Your task to perform on an android device: create a new album in the google photos Image 0: 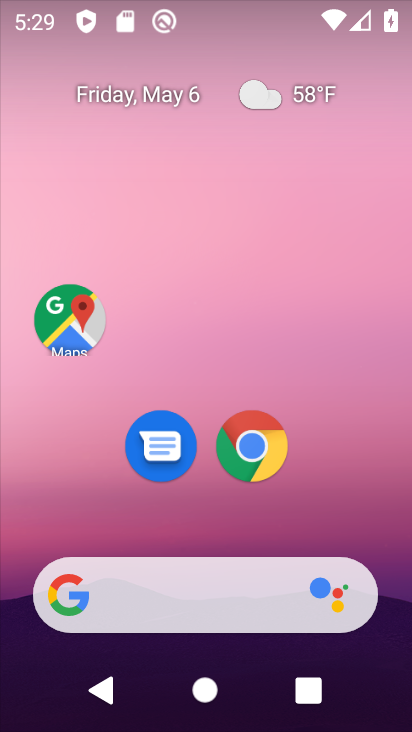
Step 0: drag from (339, 471) to (302, 127)
Your task to perform on an android device: create a new album in the google photos Image 1: 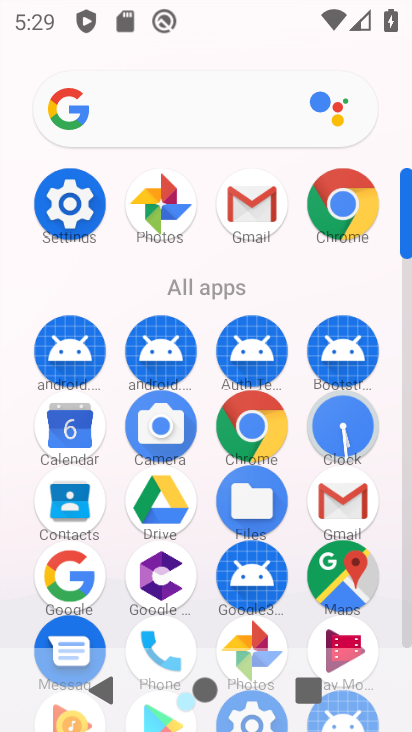
Step 1: click (157, 212)
Your task to perform on an android device: create a new album in the google photos Image 2: 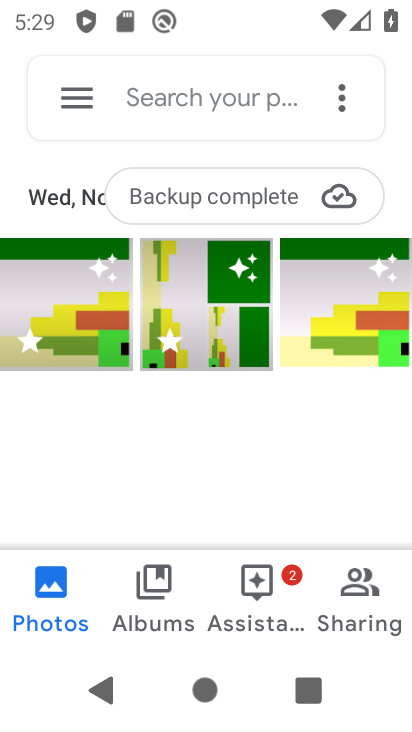
Step 2: click (86, 312)
Your task to perform on an android device: create a new album in the google photos Image 3: 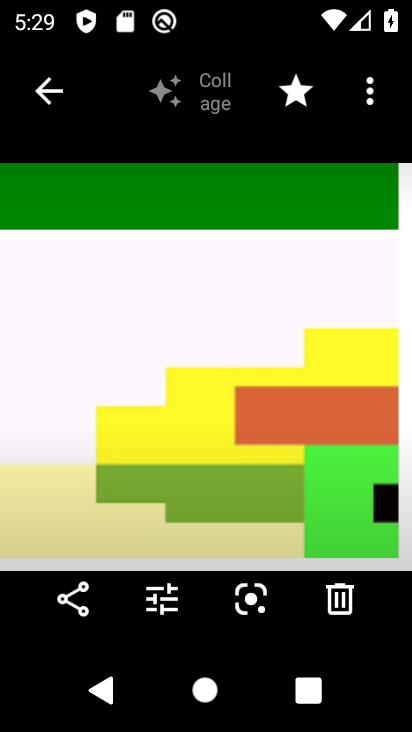
Step 3: click (365, 101)
Your task to perform on an android device: create a new album in the google photos Image 4: 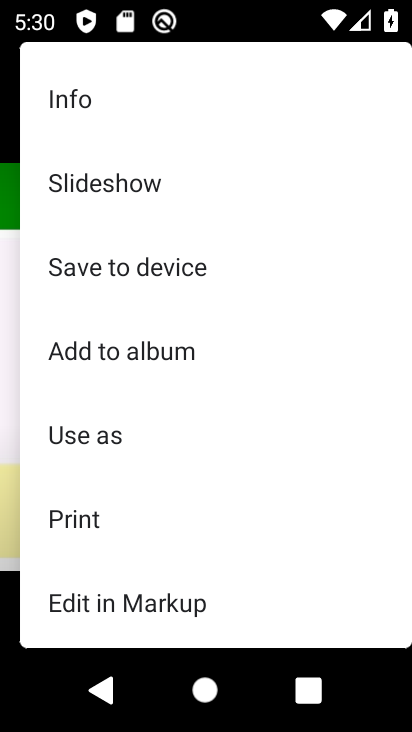
Step 4: click (132, 339)
Your task to perform on an android device: create a new album in the google photos Image 5: 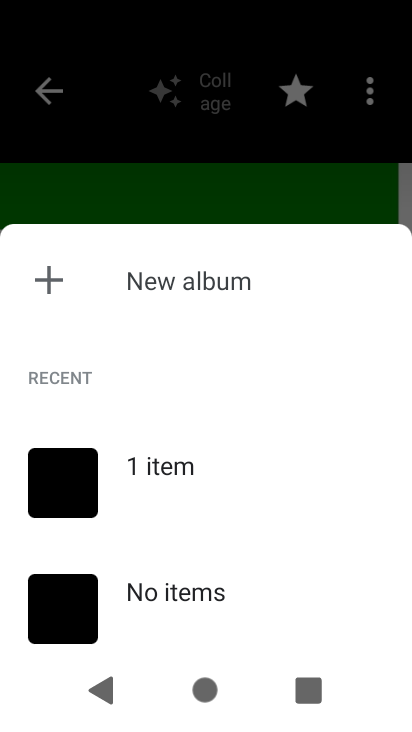
Step 5: click (47, 278)
Your task to perform on an android device: create a new album in the google photos Image 6: 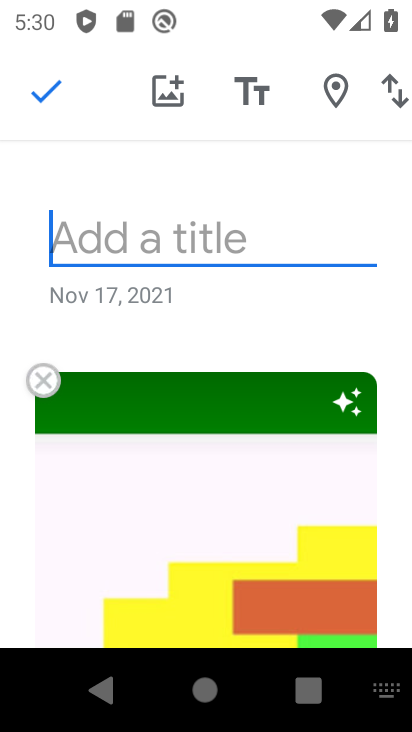
Step 6: type "glo"
Your task to perform on an android device: create a new album in the google photos Image 7: 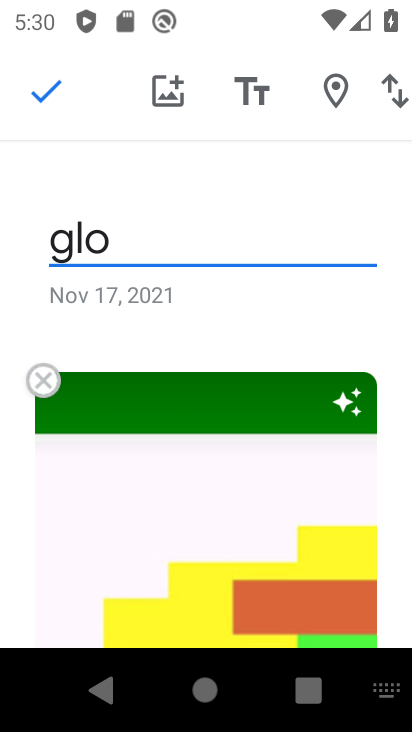
Step 7: click (54, 90)
Your task to perform on an android device: create a new album in the google photos Image 8: 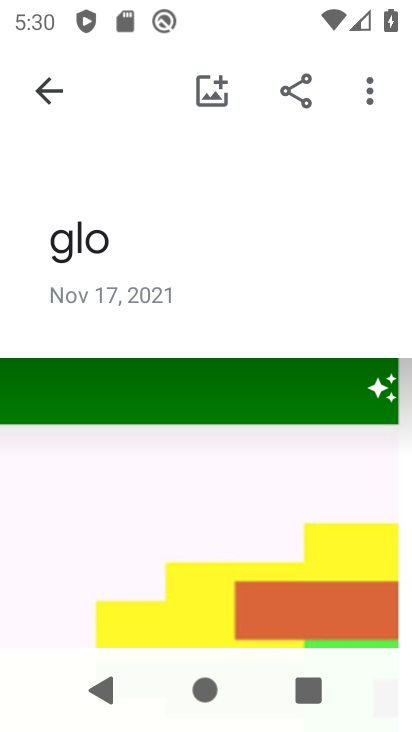
Step 8: task complete